Your task to perform on an android device: add a contact in the contacts app Image 0: 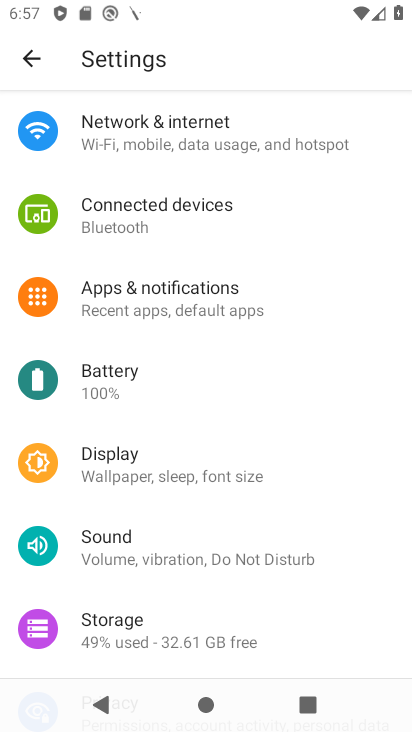
Step 0: press home button
Your task to perform on an android device: add a contact in the contacts app Image 1: 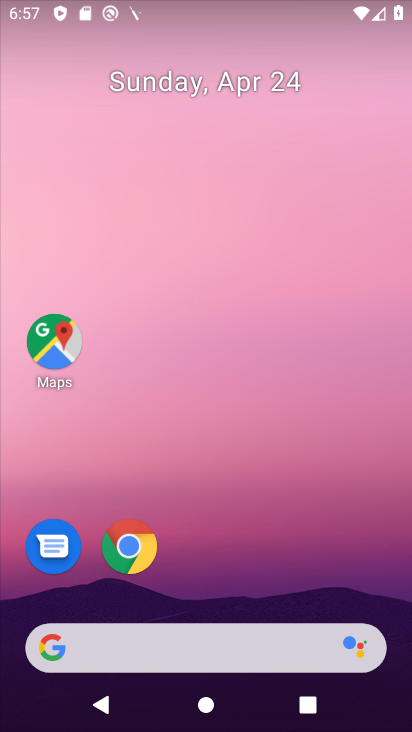
Step 1: drag from (251, 553) to (248, 273)
Your task to perform on an android device: add a contact in the contacts app Image 2: 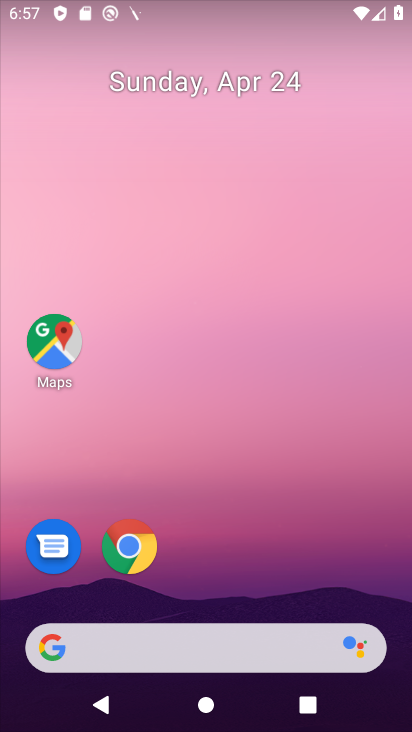
Step 2: drag from (240, 538) to (248, 12)
Your task to perform on an android device: add a contact in the contacts app Image 3: 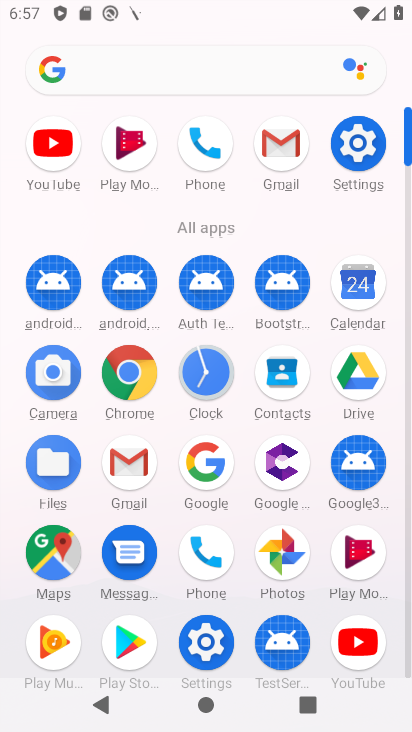
Step 3: click (285, 377)
Your task to perform on an android device: add a contact in the contacts app Image 4: 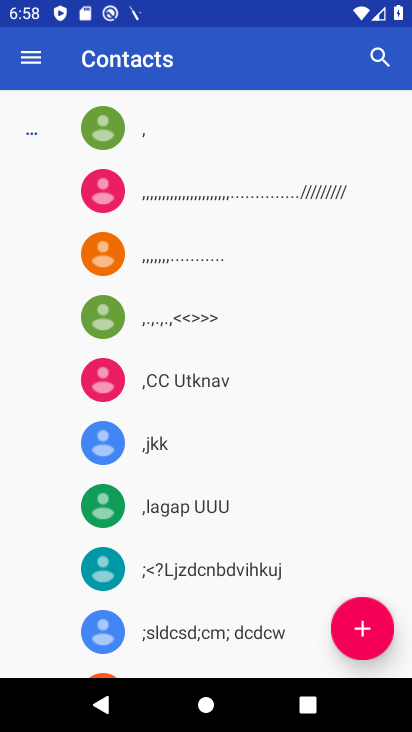
Step 4: click (362, 627)
Your task to perform on an android device: add a contact in the contacts app Image 5: 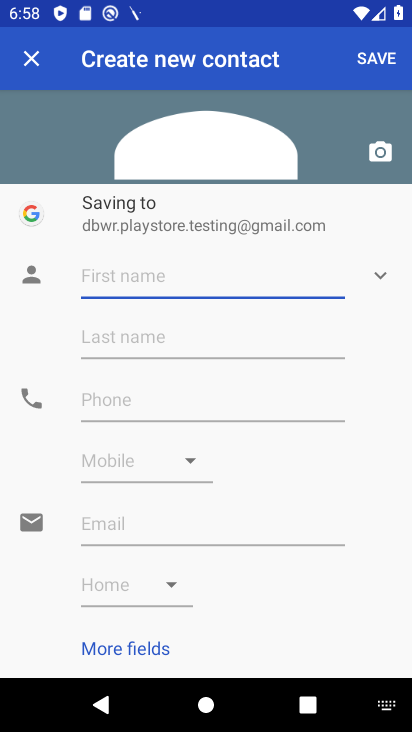
Step 5: type "kuku"
Your task to perform on an android device: add a contact in the contacts app Image 6: 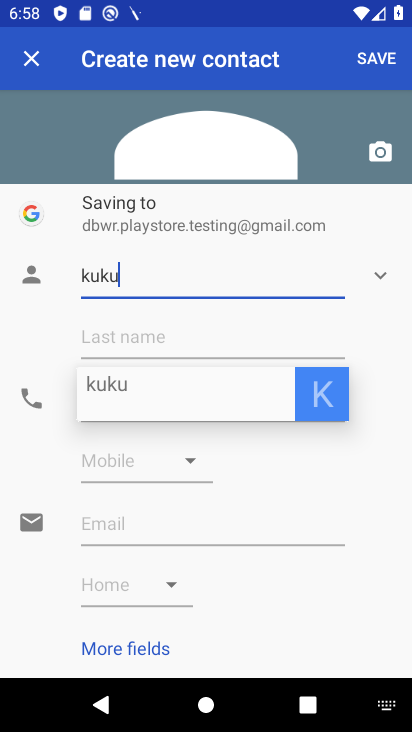
Step 6: click (272, 461)
Your task to perform on an android device: add a contact in the contacts app Image 7: 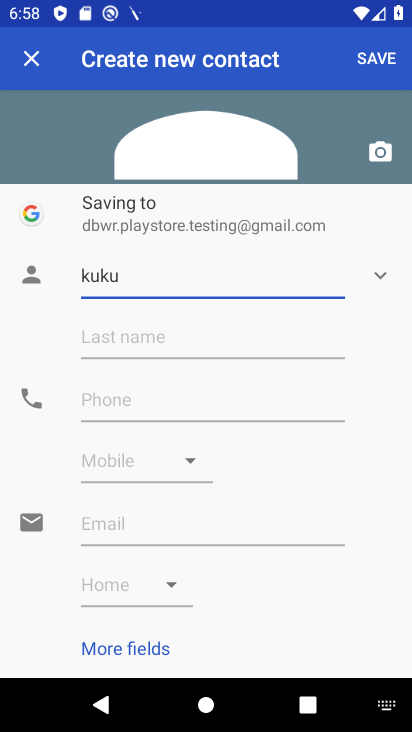
Step 7: click (197, 399)
Your task to perform on an android device: add a contact in the contacts app Image 8: 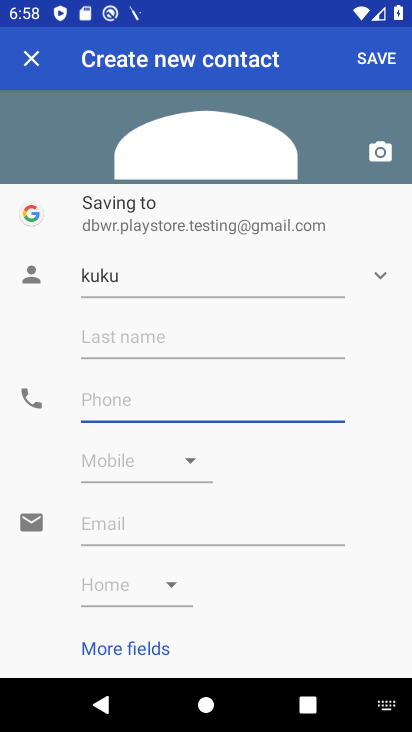
Step 8: type "9997766565"
Your task to perform on an android device: add a contact in the contacts app Image 9: 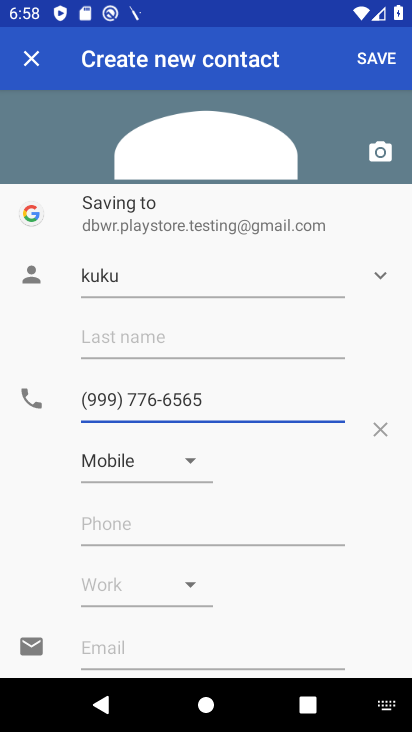
Step 9: click (372, 57)
Your task to perform on an android device: add a contact in the contacts app Image 10: 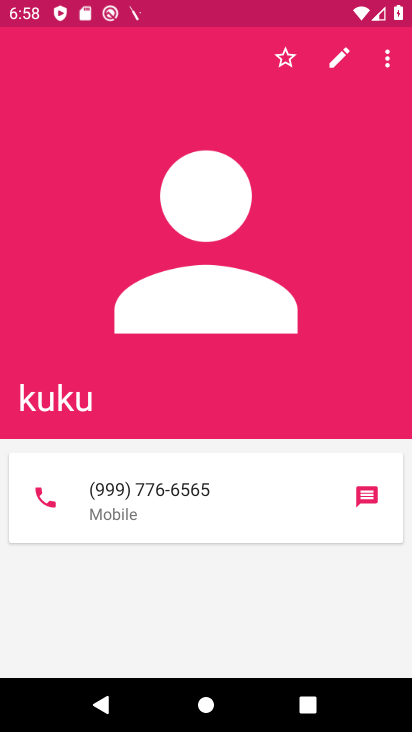
Step 10: task complete